Your task to perform on an android device: What's on my calendar today? Image 0: 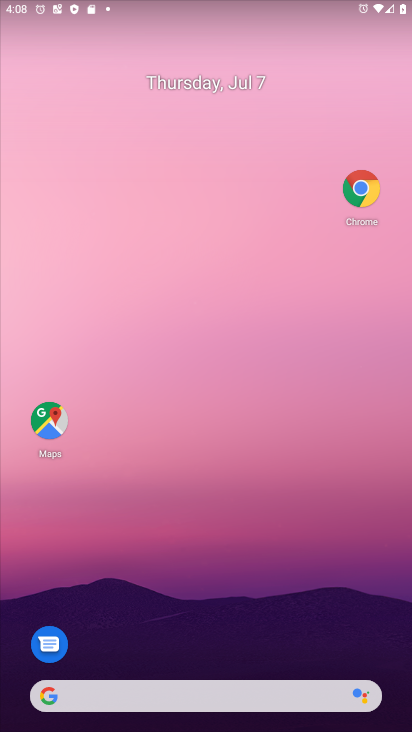
Step 0: drag from (340, 662) to (301, 279)
Your task to perform on an android device: What's on my calendar today? Image 1: 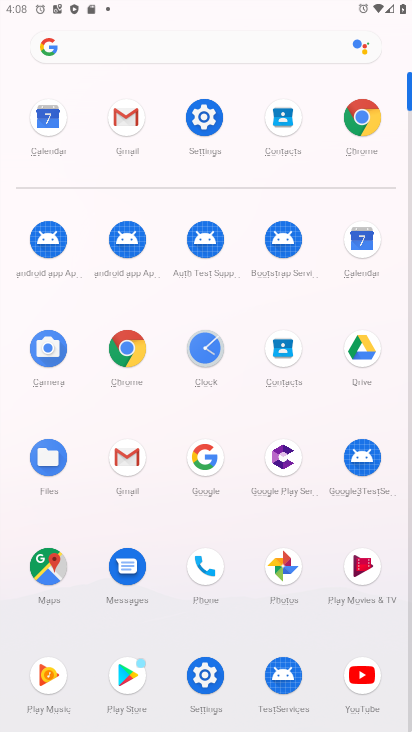
Step 1: click (393, 242)
Your task to perform on an android device: What's on my calendar today? Image 2: 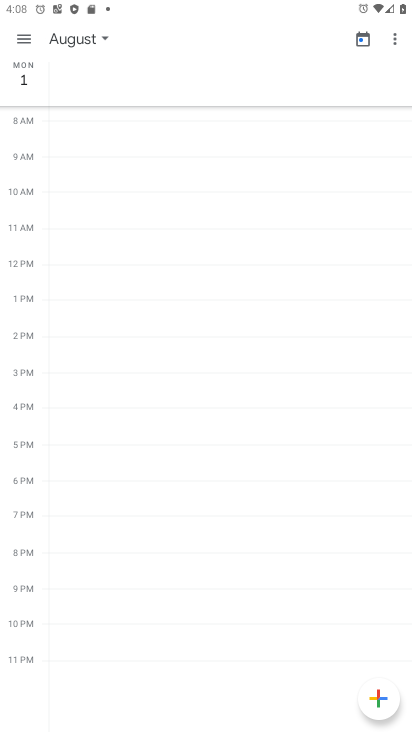
Step 2: click (94, 39)
Your task to perform on an android device: What's on my calendar today? Image 3: 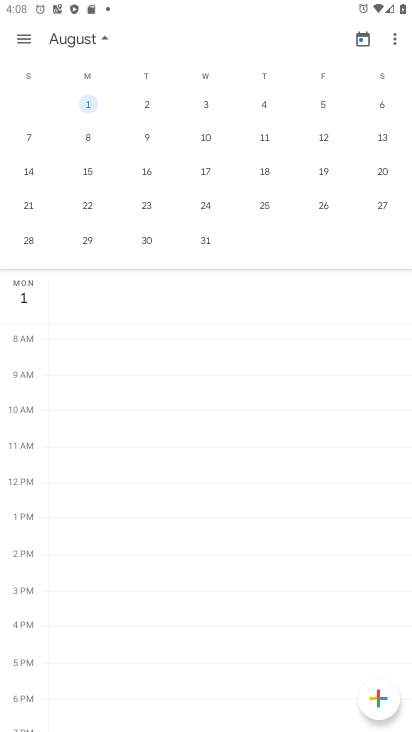
Step 3: drag from (32, 113) to (385, 150)
Your task to perform on an android device: What's on my calendar today? Image 4: 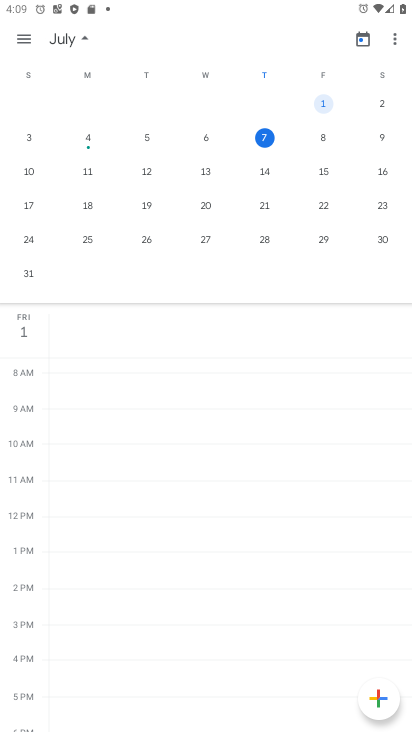
Step 4: click (268, 139)
Your task to perform on an android device: What's on my calendar today? Image 5: 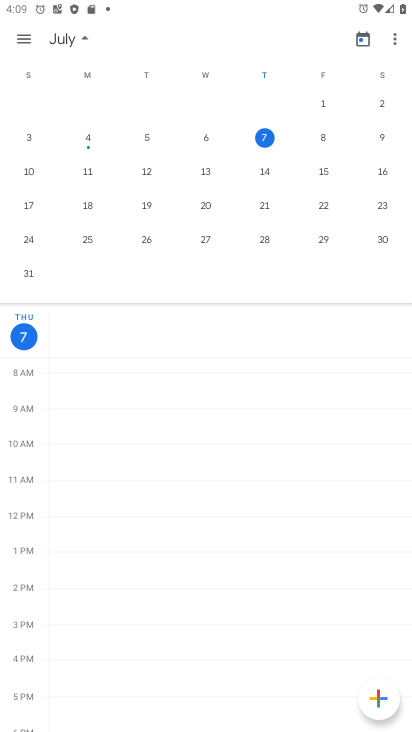
Step 5: task complete